Your task to perform on an android device: Go to Maps Image 0: 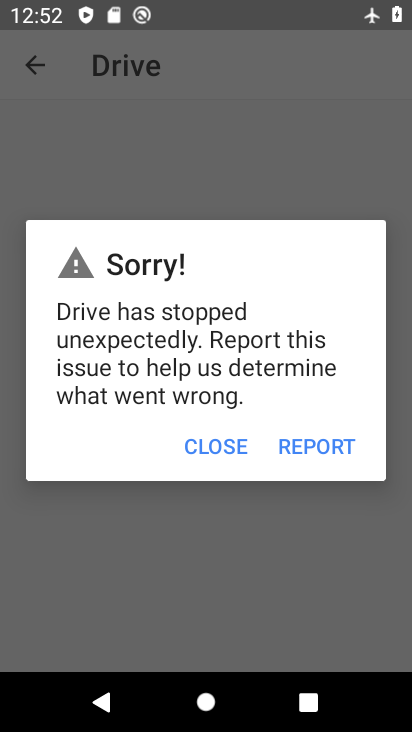
Step 0: press home button
Your task to perform on an android device: Go to Maps Image 1: 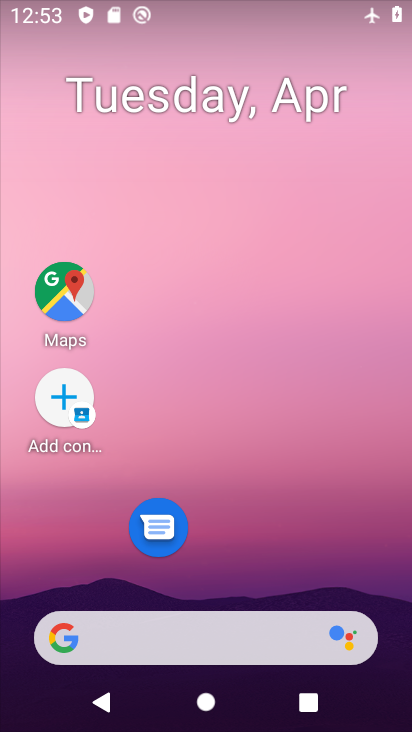
Step 1: click (64, 289)
Your task to perform on an android device: Go to Maps Image 2: 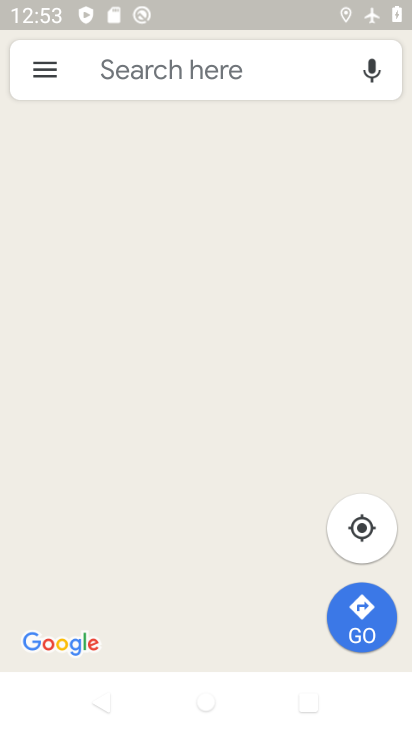
Step 2: task complete